Your task to perform on an android device: toggle show notifications on the lock screen Image 0: 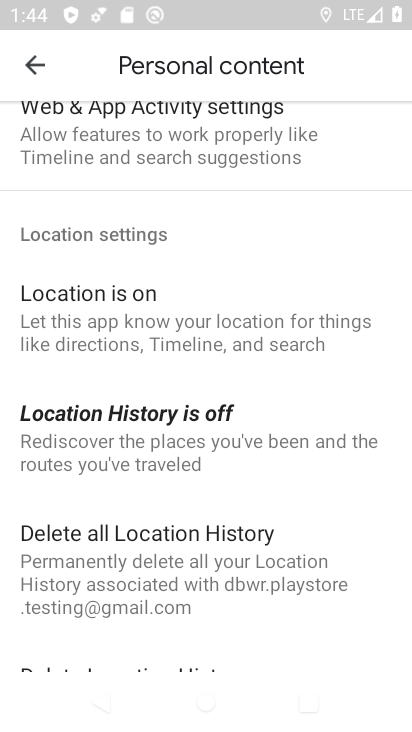
Step 0: press home button
Your task to perform on an android device: toggle show notifications on the lock screen Image 1: 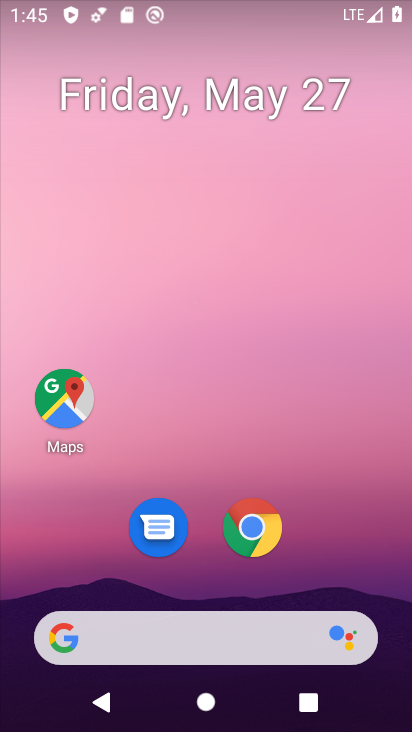
Step 1: drag from (250, 717) to (294, 2)
Your task to perform on an android device: toggle show notifications on the lock screen Image 2: 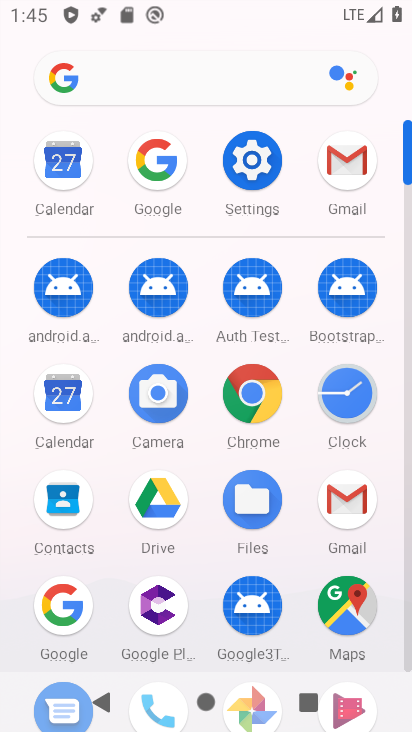
Step 2: click (243, 165)
Your task to perform on an android device: toggle show notifications on the lock screen Image 3: 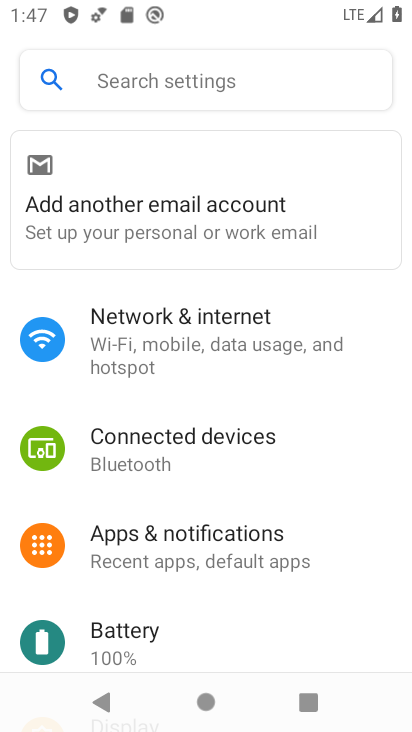
Step 3: click (231, 549)
Your task to perform on an android device: toggle show notifications on the lock screen Image 4: 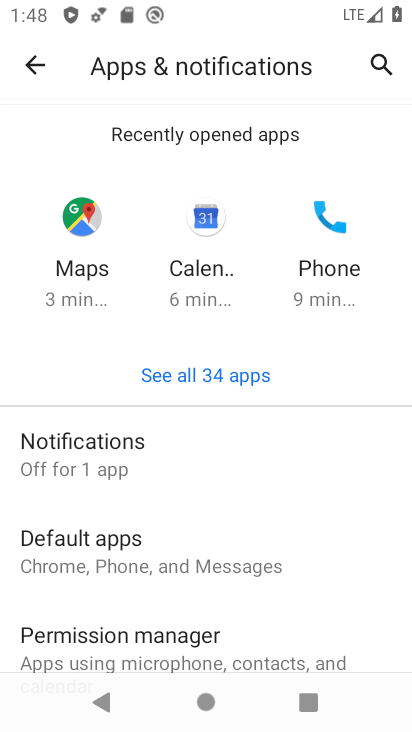
Step 4: click (137, 472)
Your task to perform on an android device: toggle show notifications on the lock screen Image 5: 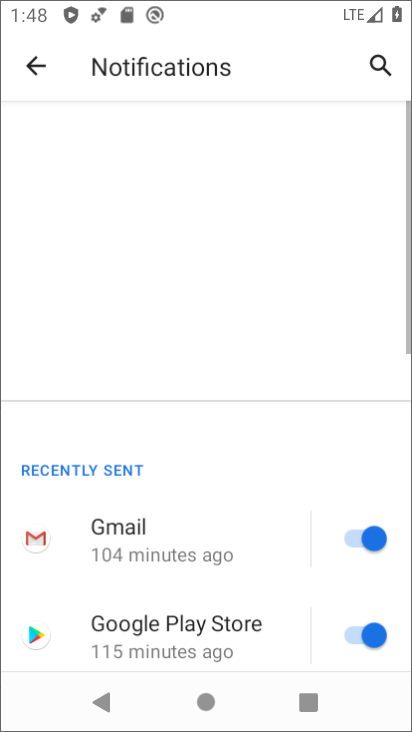
Step 5: drag from (161, 684) to (294, 94)
Your task to perform on an android device: toggle show notifications on the lock screen Image 6: 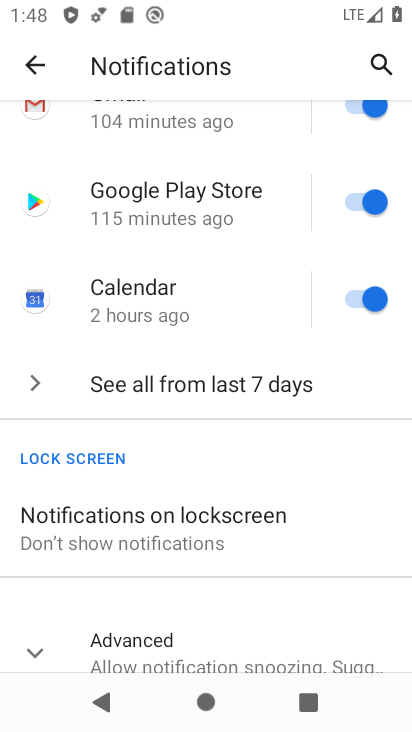
Step 6: click (208, 514)
Your task to perform on an android device: toggle show notifications on the lock screen Image 7: 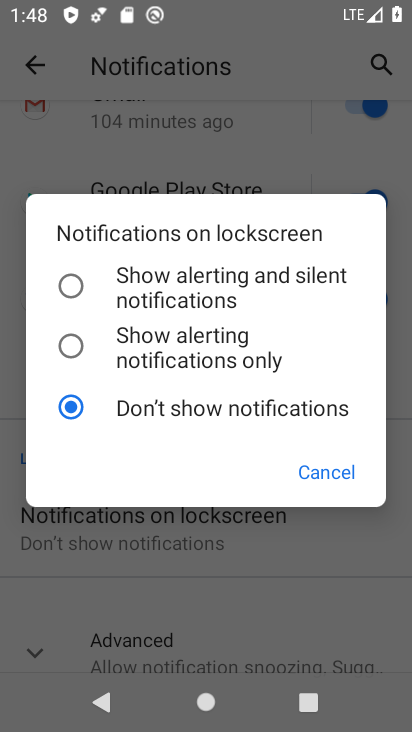
Step 7: click (241, 277)
Your task to perform on an android device: toggle show notifications on the lock screen Image 8: 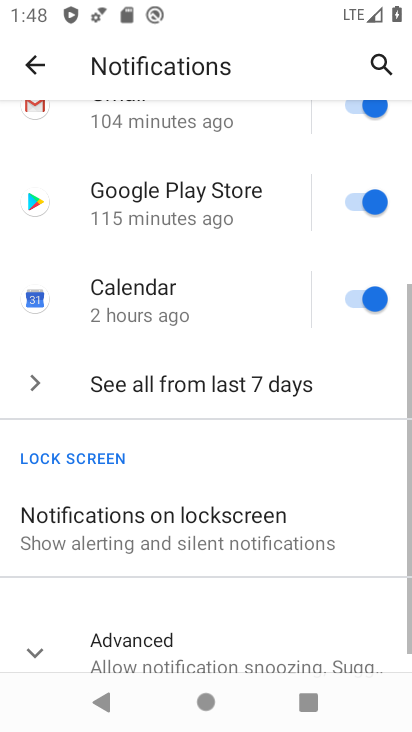
Step 8: task complete